Your task to perform on an android device: add a label to a message in the gmail app Image 0: 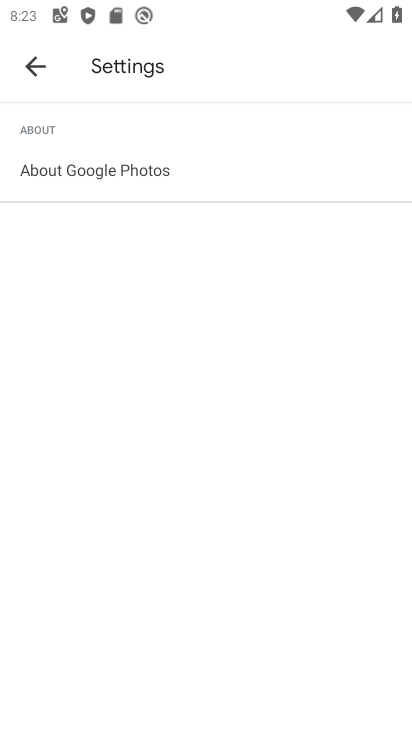
Step 0: press home button
Your task to perform on an android device: add a label to a message in the gmail app Image 1: 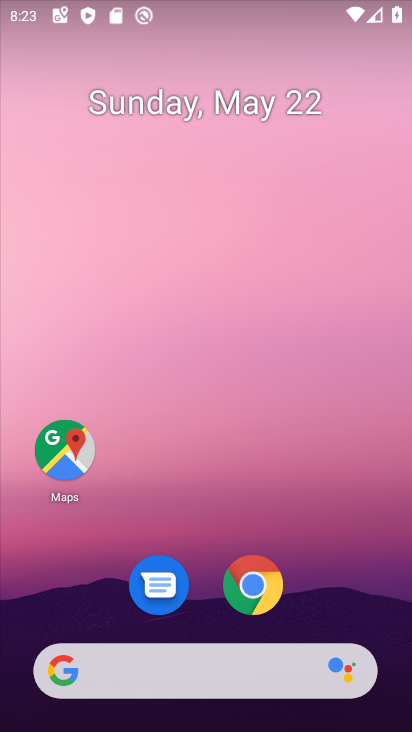
Step 1: drag from (206, 495) to (228, 2)
Your task to perform on an android device: add a label to a message in the gmail app Image 2: 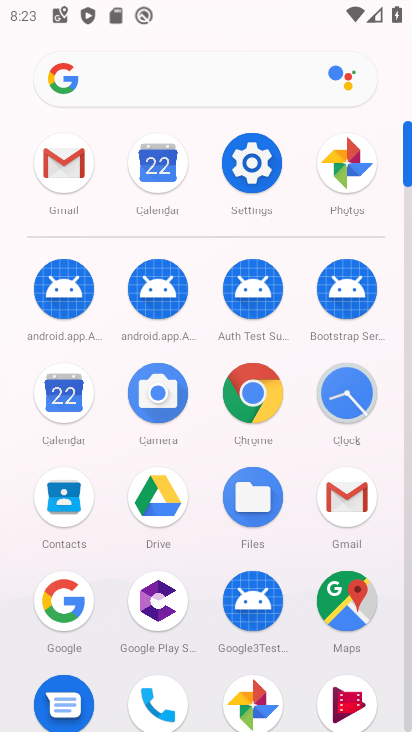
Step 2: click (61, 168)
Your task to perform on an android device: add a label to a message in the gmail app Image 3: 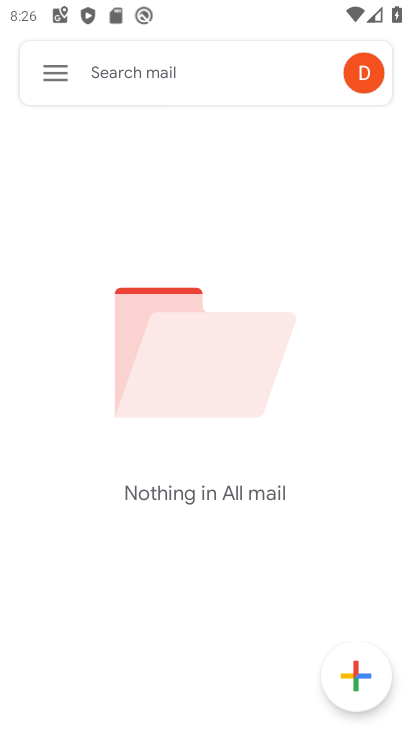
Step 3: task complete